Your task to perform on an android device: check storage Image 0: 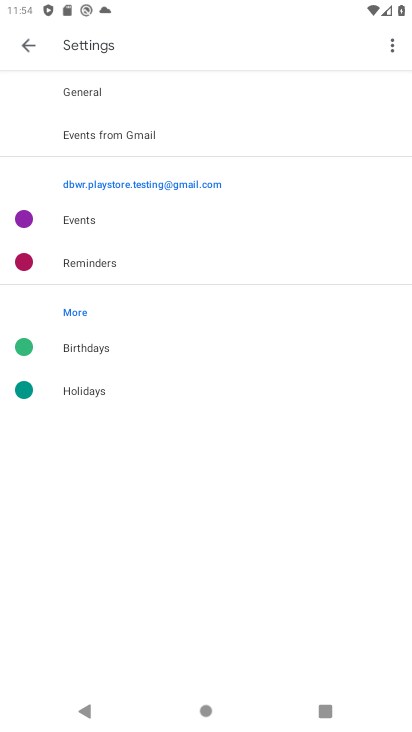
Step 0: press home button
Your task to perform on an android device: check storage Image 1: 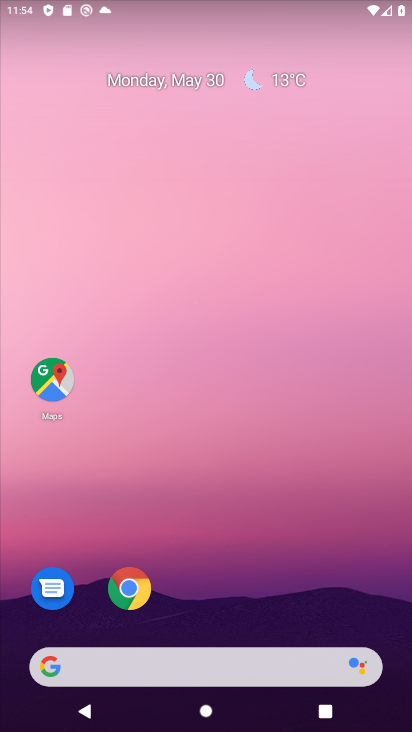
Step 1: drag from (399, 568) to (393, 107)
Your task to perform on an android device: check storage Image 2: 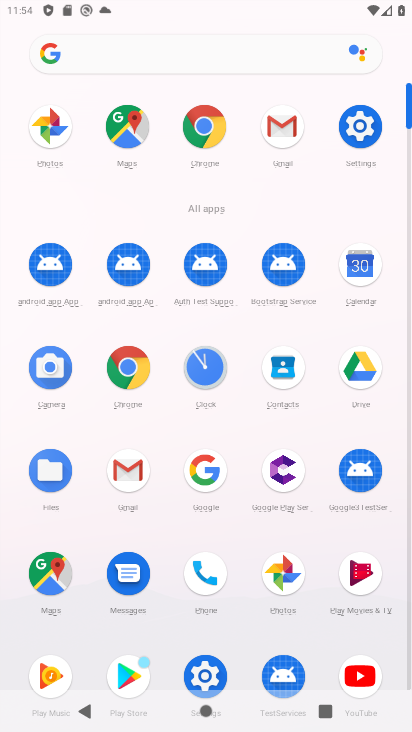
Step 2: click (369, 126)
Your task to perform on an android device: check storage Image 3: 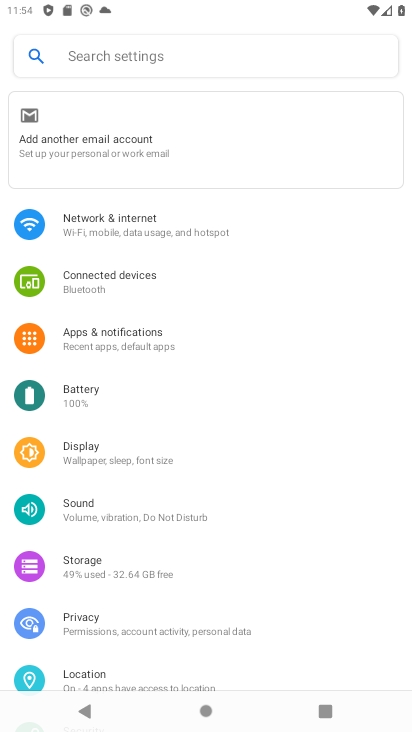
Step 3: click (119, 556)
Your task to perform on an android device: check storage Image 4: 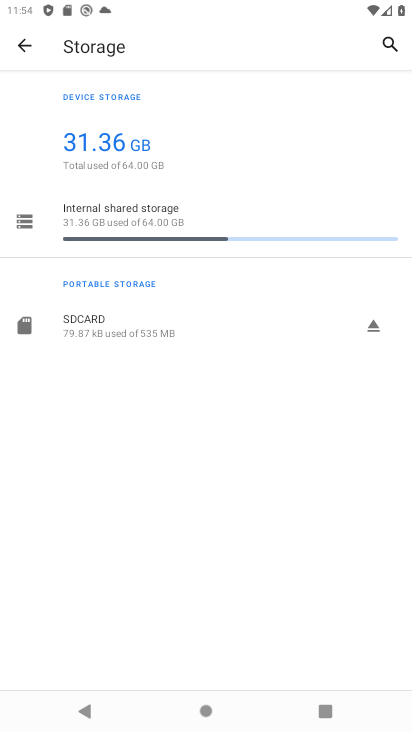
Step 4: task complete